Your task to perform on an android device: open device folders in google photos Image 0: 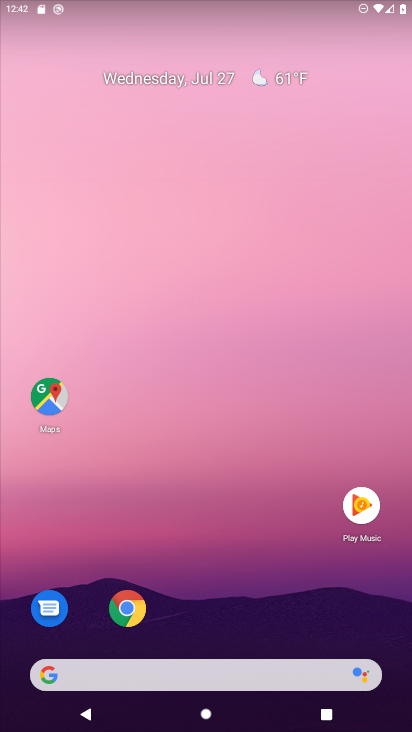
Step 0: press home button
Your task to perform on an android device: open device folders in google photos Image 1: 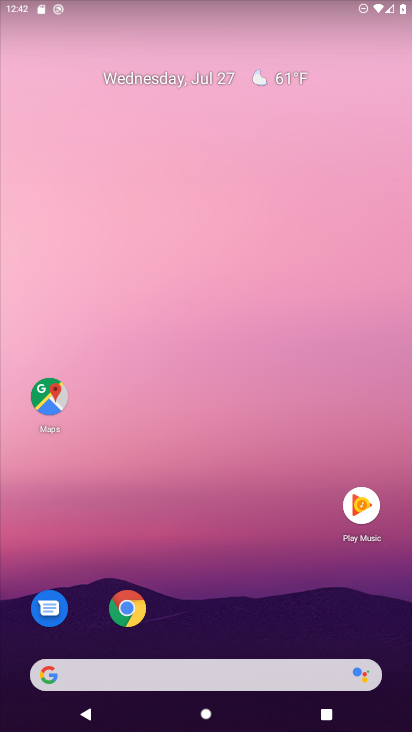
Step 1: drag from (280, 623) to (272, 202)
Your task to perform on an android device: open device folders in google photos Image 2: 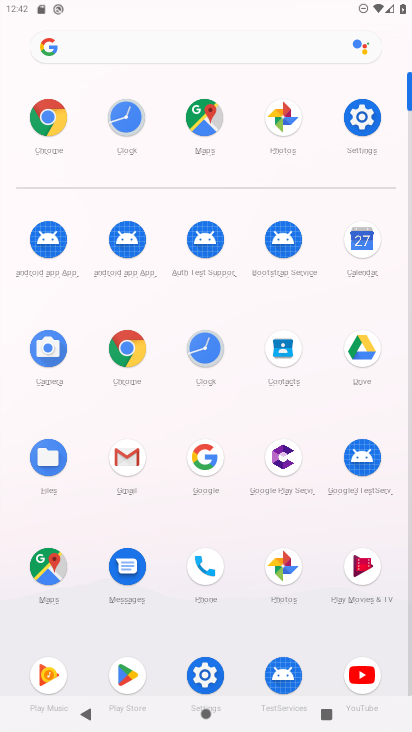
Step 2: click (280, 568)
Your task to perform on an android device: open device folders in google photos Image 3: 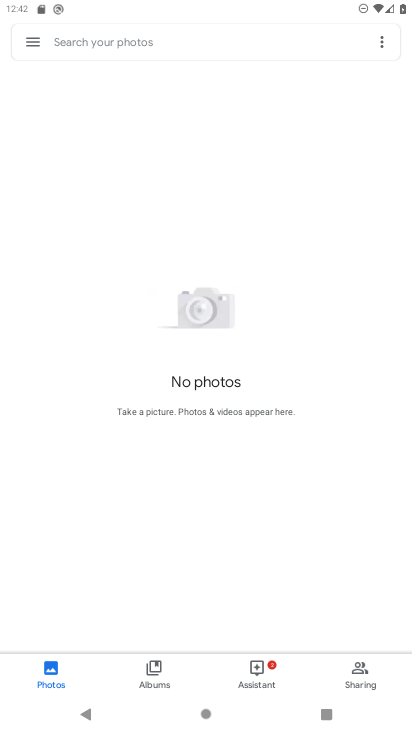
Step 3: click (33, 42)
Your task to perform on an android device: open device folders in google photos Image 4: 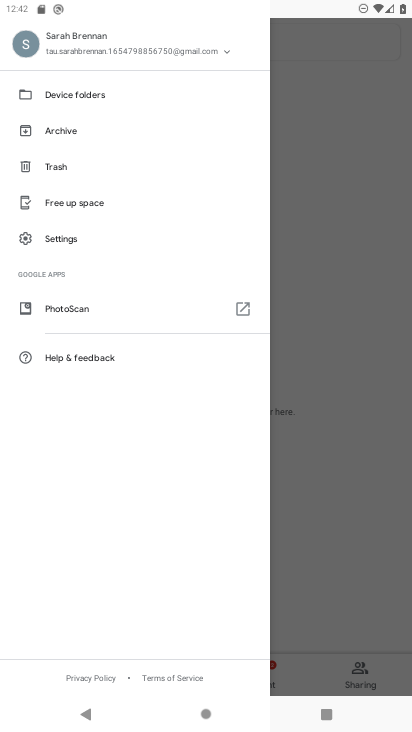
Step 4: click (69, 90)
Your task to perform on an android device: open device folders in google photos Image 5: 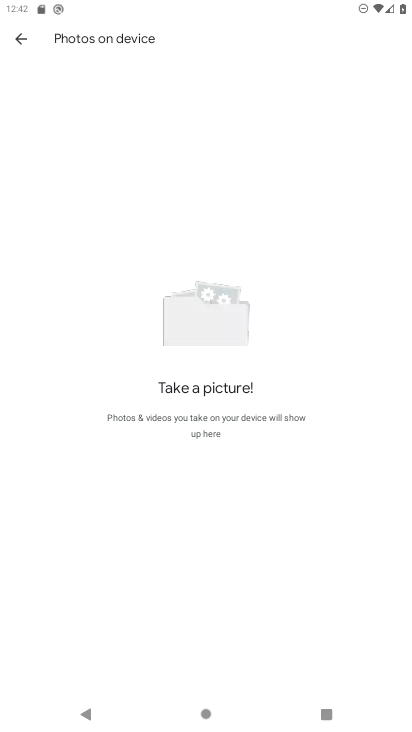
Step 5: task complete